Your task to perform on an android device: add a contact Image 0: 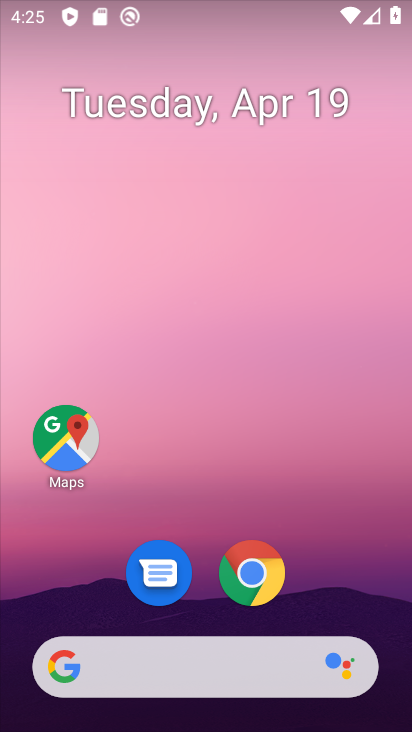
Step 0: drag from (373, 532) to (393, 127)
Your task to perform on an android device: add a contact Image 1: 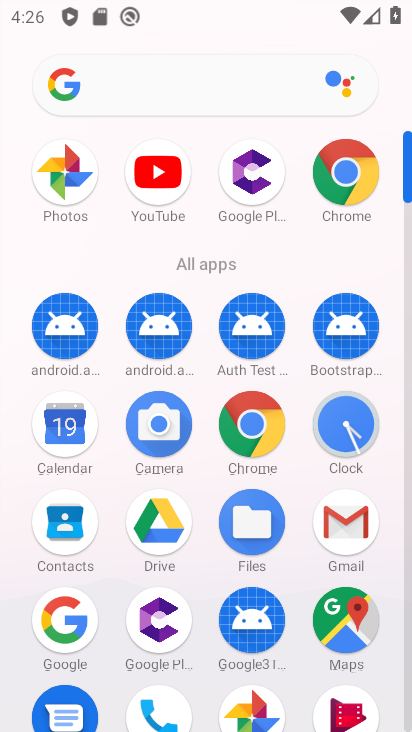
Step 1: click (165, 699)
Your task to perform on an android device: add a contact Image 2: 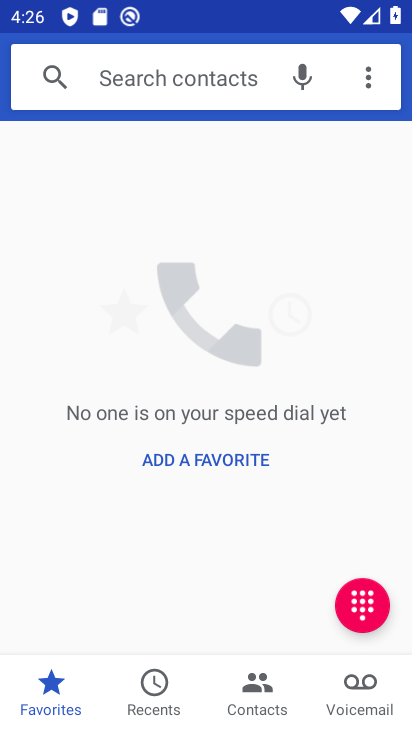
Step 2: click (182, 472)
Your task to perform on an android device: add a contact Image 3: 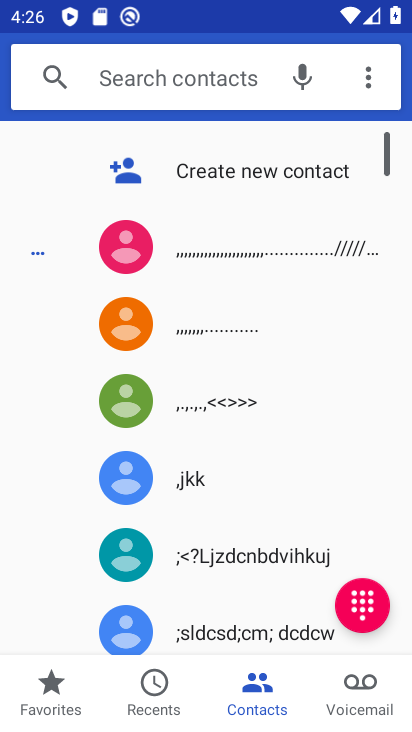
Step 3: click (174, 165)
Your task to perform on an android device: add a contact Image 4: 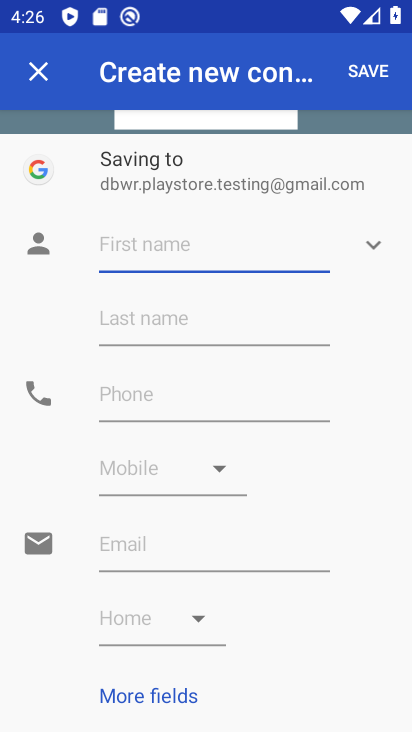
Step 4: type "ram"
Your task to perform on an android device: add a contact Image 5: 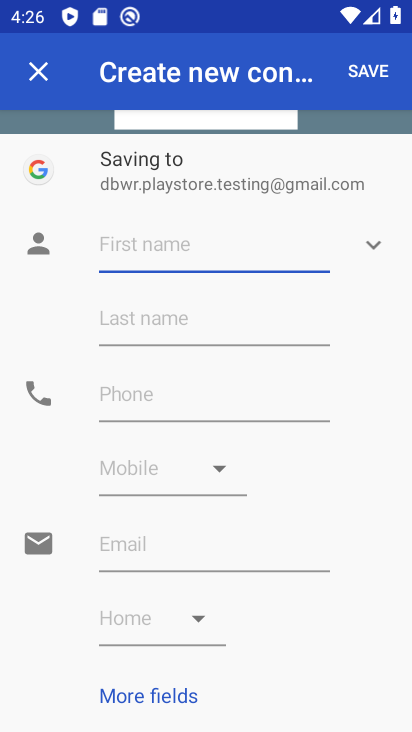
Step 5: click (168, 400)
Your task to perform on an android device: add a contact Image 6: 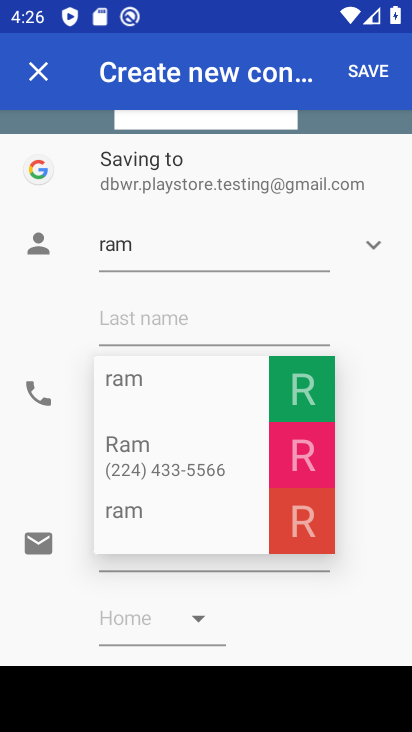
Step 6: type "8656738383"
Your task to perform on an android device: add a contact Image 7: 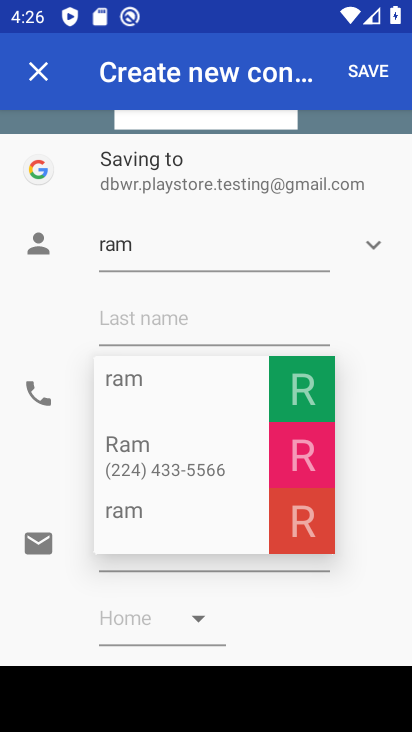
Step 7: click (376, 423)
Your task to perform on an android device: add a contact Image 8: 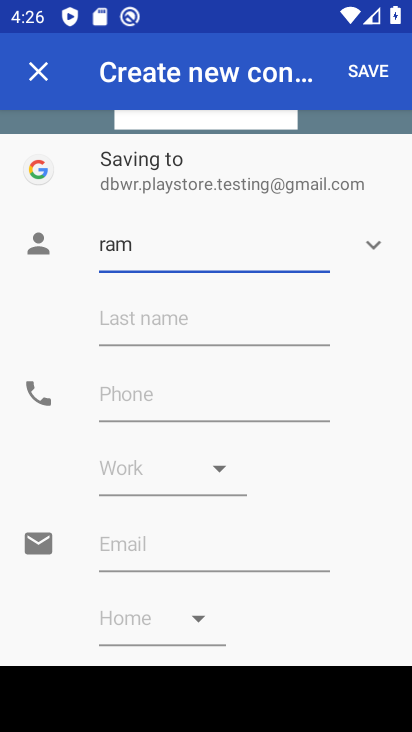
Step 8: click (182, 398)
Your task to perform on an android device: add a contact Image 9: 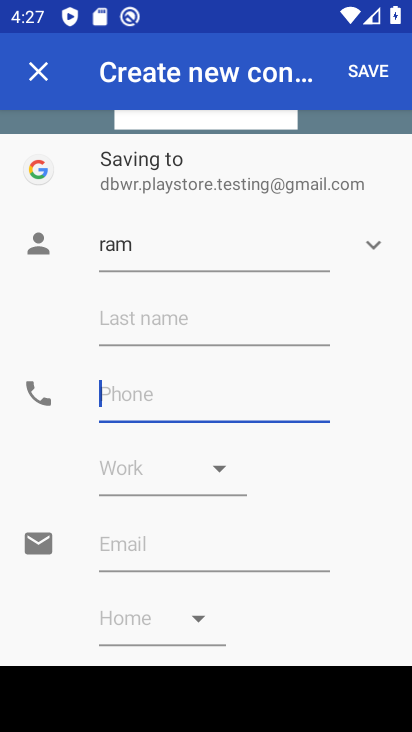
Step 9: type "678973636"
Your task to perform on an android device: add a contact Image 10: 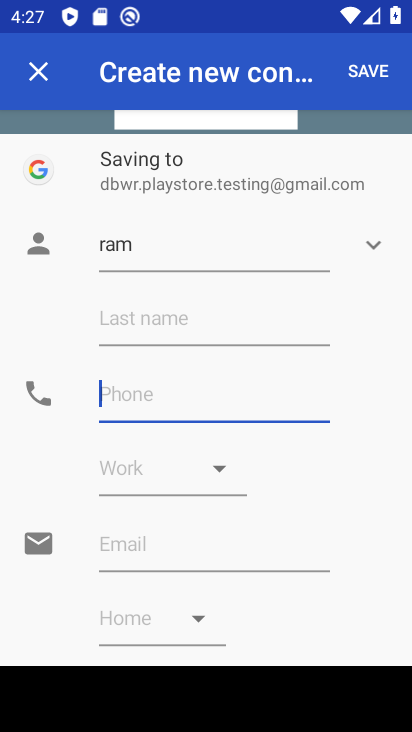
Step 10: click (216, 461)
Your task to perform on an android device: add a contact Image 11: 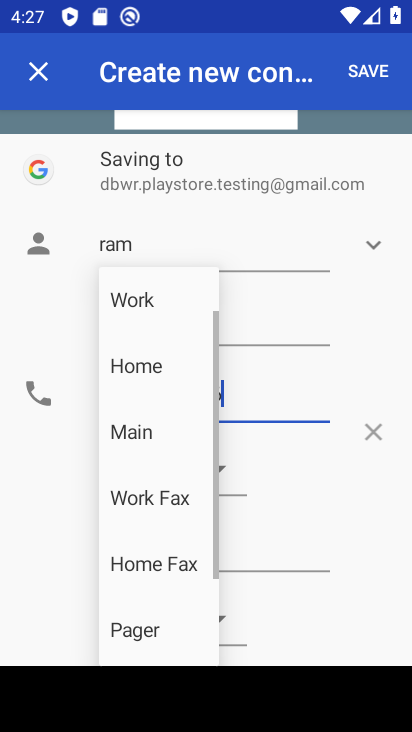
Step 11: click (120, 560)
Your task to perform on an android device: add a contact Image 12: 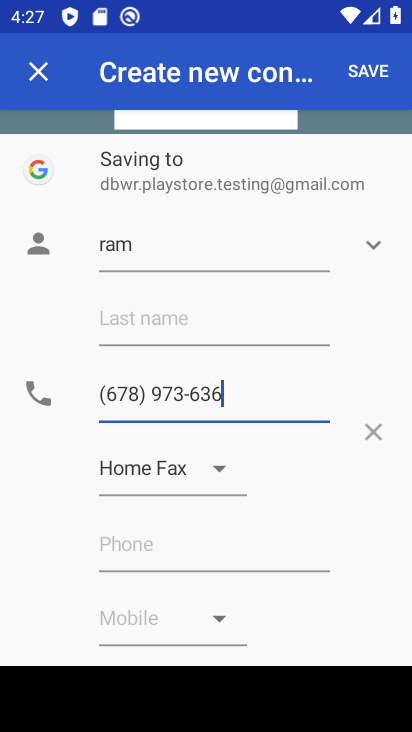
Step 12: click (363, 88)
Your task to perform on an android device: add a contact Image 13: 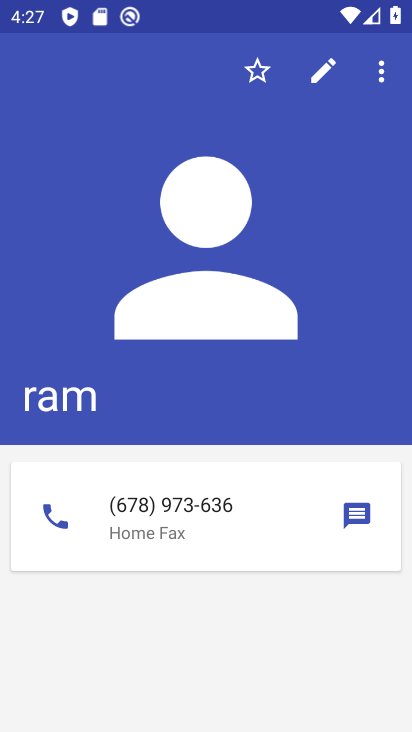
Step 13: task complete